Your task to perform on an android device: Open Chrome and go to the settings page Image 0: 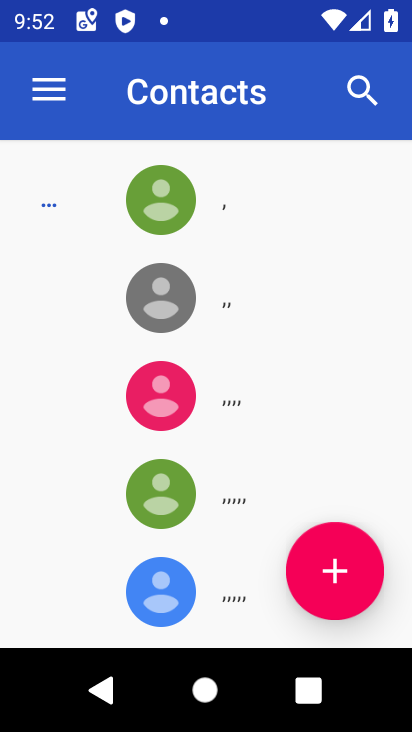
Step 0: press home button
Your task to perform on an android device: Open Chrome and go to the settings page Image 1: 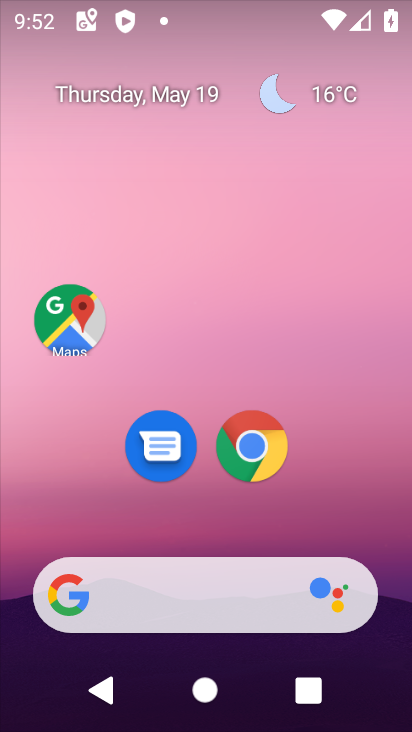
Step 1: click (258, 439)
Your task to perform on an android device: Open Chrome and go to the settings page Image 2: 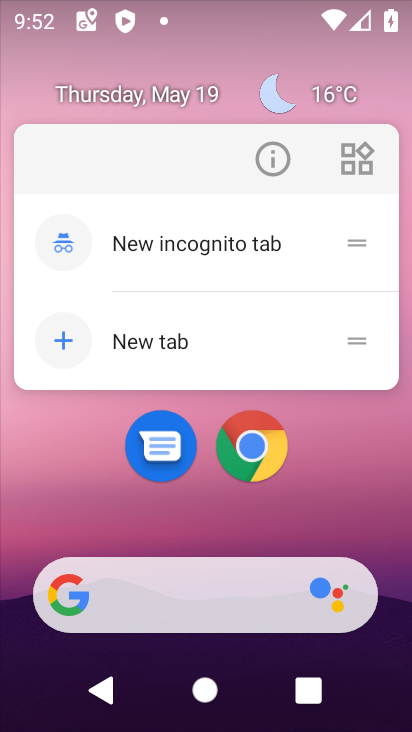
Step 2: click (249, 458)
Your task to perform on an android device: Open Chrome and go to the settings page Image 3: 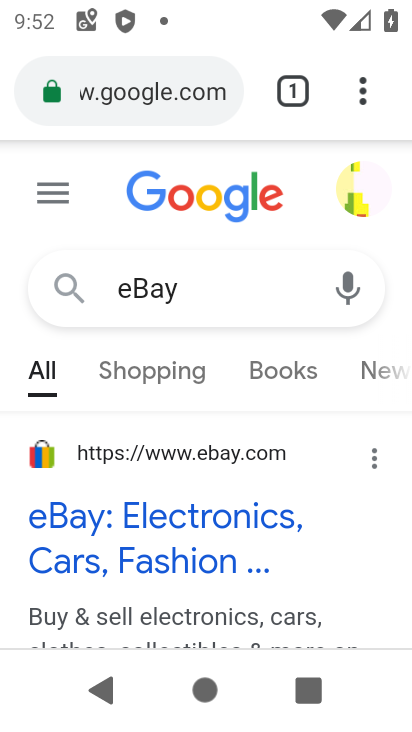
Step 3: click (363, 101)
Your task to perform on an android device: Open Chrome and go to the settings page Image 4: 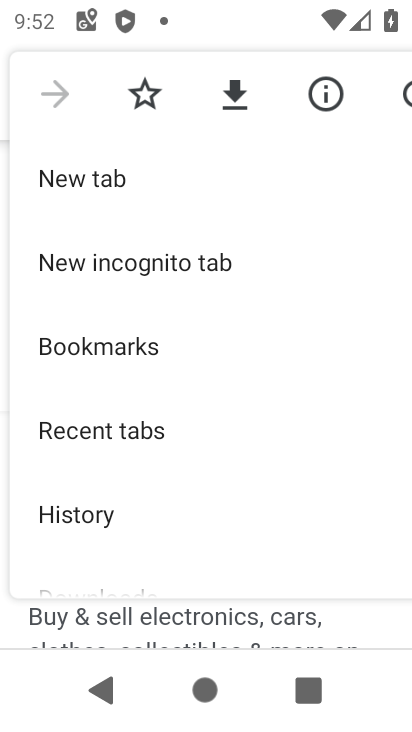
Step 4: drag from (159, 508) to (149, 305)
Your task to perform on an android device: Open Chrome and go to the settings page Image 5: 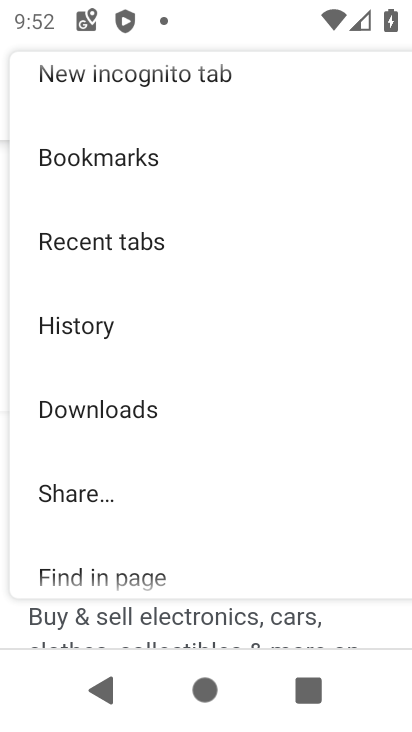
Step 5: drag from (118, 498) to (163, 248)
Your task to perform on an android device: Open Chrome and go to the settings page Image 6: 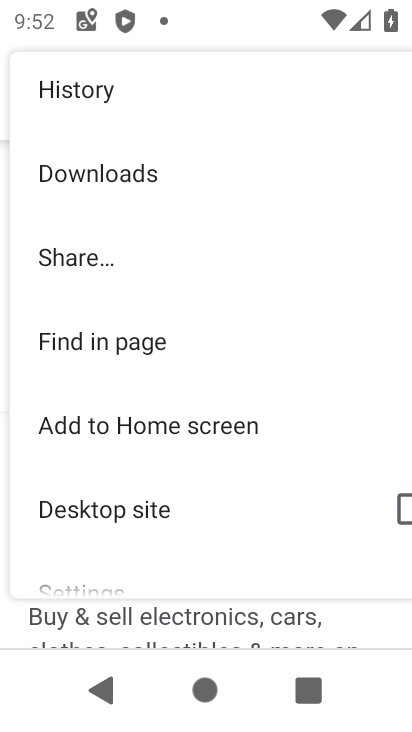
Step 6: drag from (146, 484) to (228, 63)
Your task to perform on an android device: Open Chrome and go to the settings page Image 7: 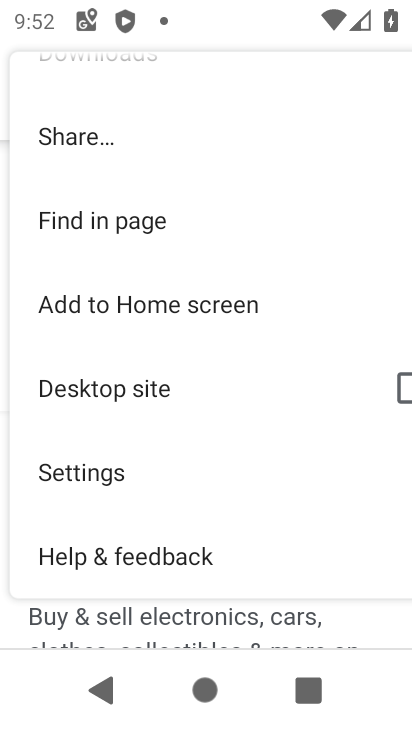
Step 7: click (107, 476)
Your task to perform on an android device: Open Chrome and go to the settings page Image 8: 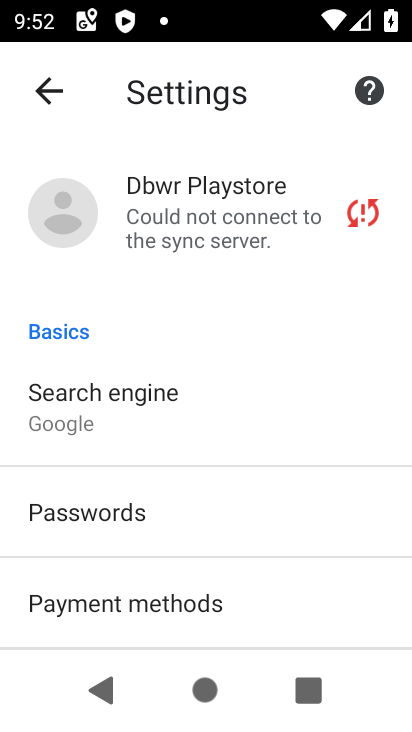
Step 8: task complete